Your task to perform on an android device: turn pop-ups off in chrome Image 0: 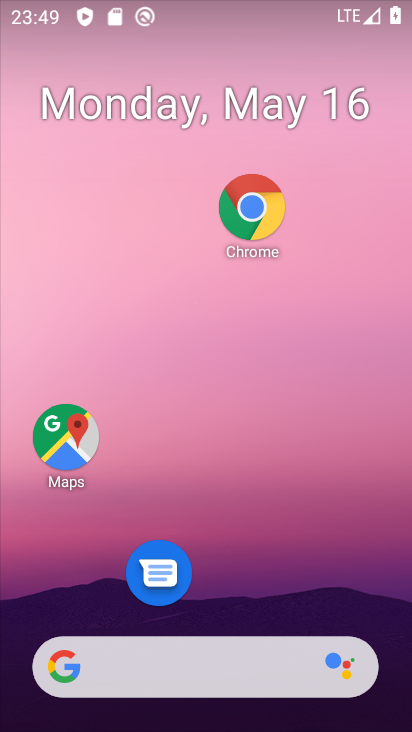
Step 0: drag from (222, 641) to (259, 151)
Your task to perform on an android device: turn pop-ups off in chrome Image 1: 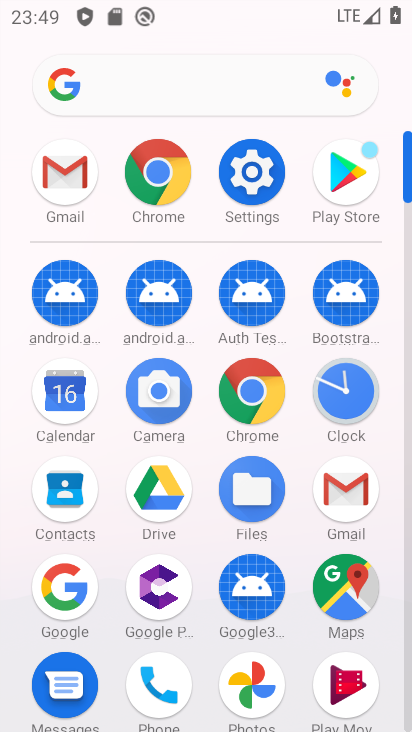
Step 1: click (274, 397)
Your task to perform on an android device: turn pop-ups off in chrome Image 2: 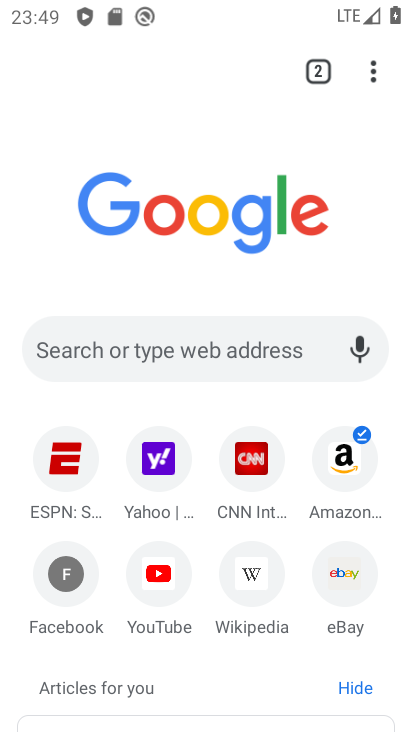
Step 2: drag from (369, 67) to (152, 606)
Your task to perform on an android device: turn pop-ups off in chrome Image 3: 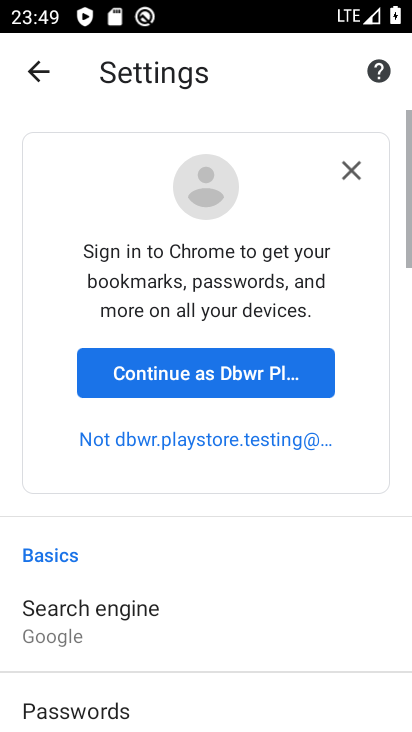
Step 3: drag from (124, 655) to (180, 99)
Your task to perform on an android device: turn pop-ups off in chrome Image 4: 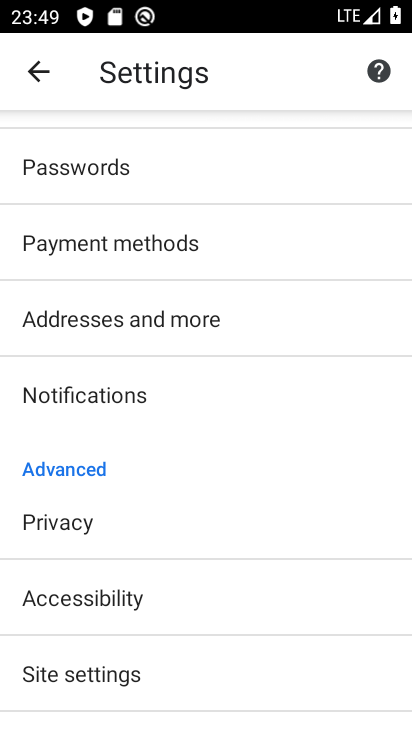
Step 4: drag from (166, 661) to (193, 368)
Your task to perform on an android device: turn pop-ups off in chrome Image 5: 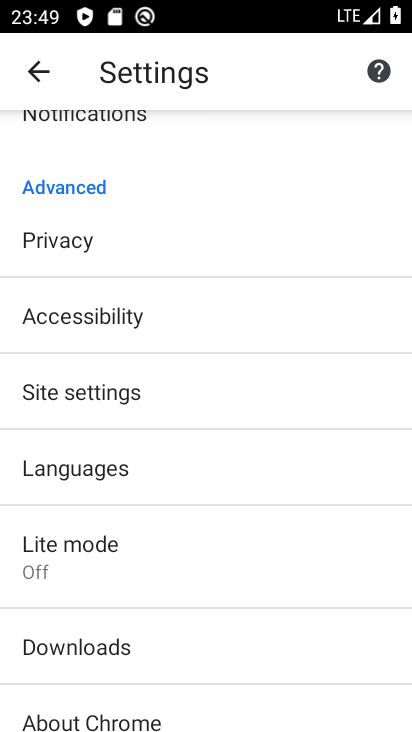
Step 5: click (150, 409)
Your task to perform on an android device: turn pop-ups off in chrome Image 6: 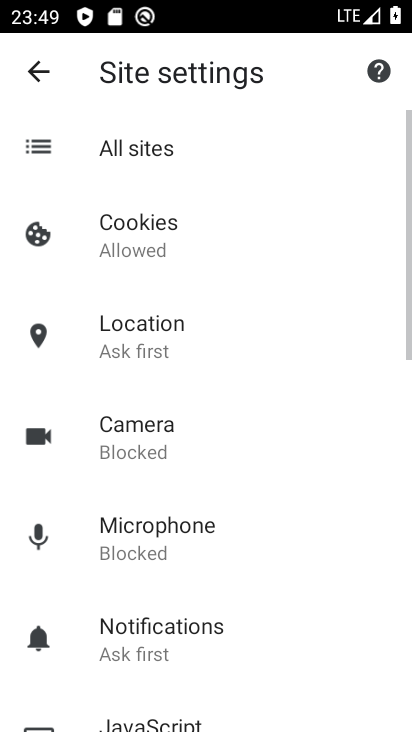
Step 6: drag from (244, 665) to (249, 140)
Your task to perform on an android device: turn pop-ups off in chrome Image 7: 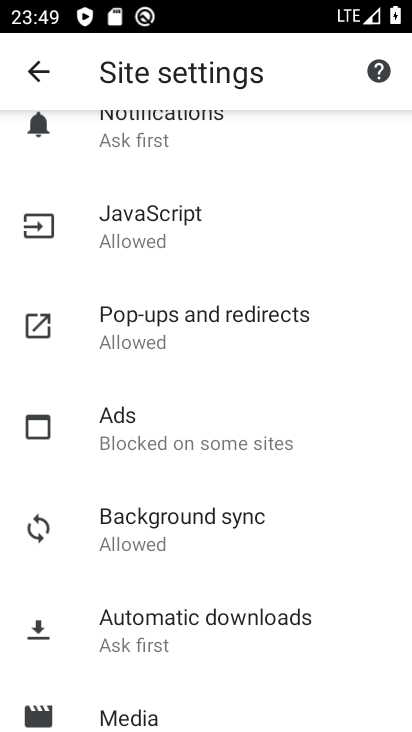
Step 7: click (218, 318)
Your task to perform on an android device: turn pop-ups off in chrome Image 8: 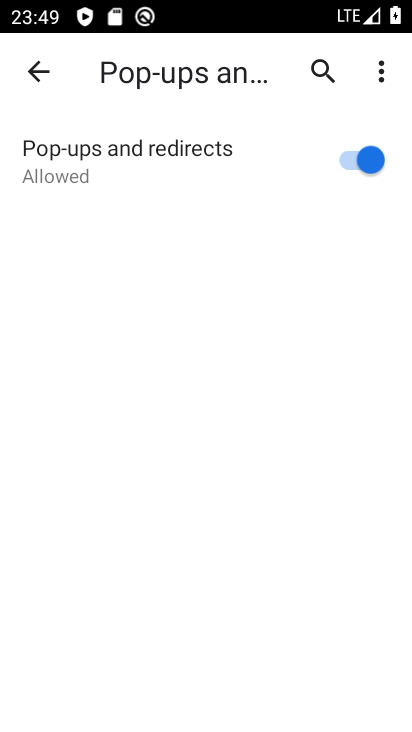
Step 8: click (348, 163)
Your task to perform on an android device: turn pop-ups off in chrome Image 9: 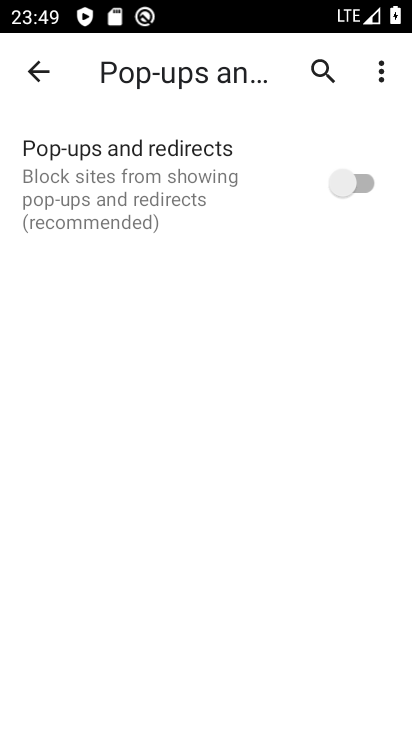
Step 9: task complete